Your task to perform on an android device: turn on sleep mode Image 0: 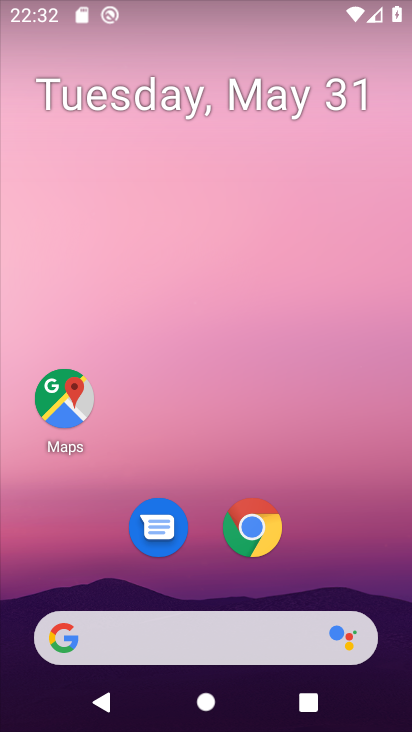
Step 0: drag from (241, 271) to (233, 55)
Your task to perform on an android device: turn on sleep mode Image 1: 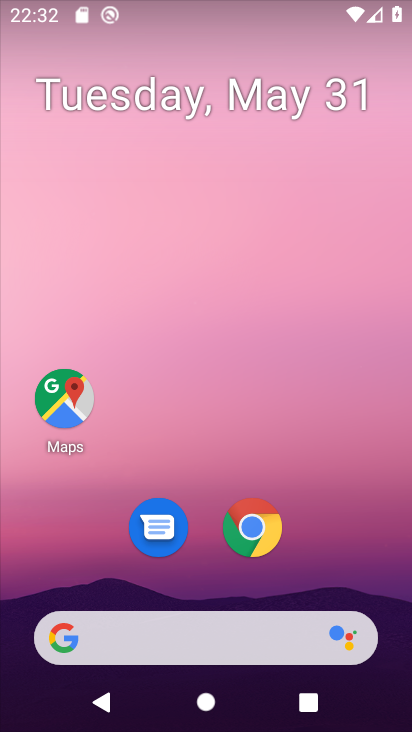
Step 1: drag from (292, 176) to (234, 7)
Your task to perform on an android device: turn on sleep mode Image 2: 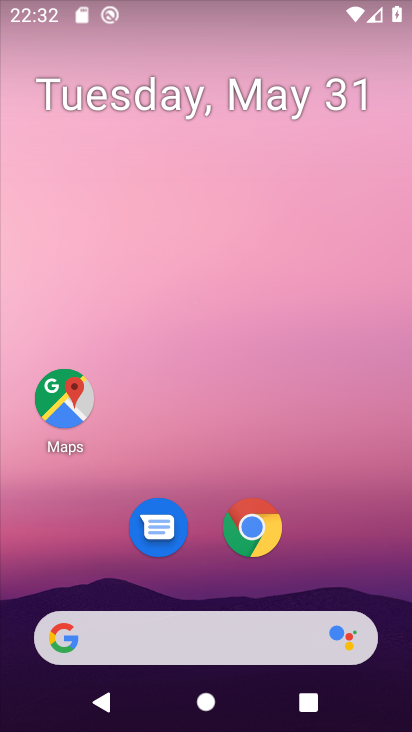
Step 2: drag from (329, 470) to (269, 25)
Your task to perform on an android device: turn on sleep mode Image 3: 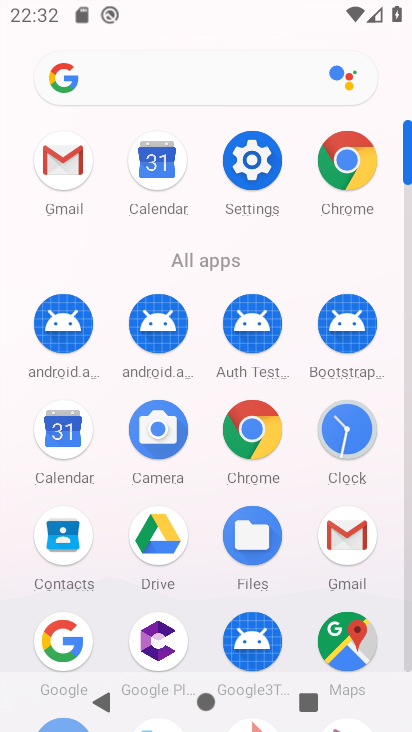
Step 3: click (257, 166)
Your task to perform on an android device: turn on sleep mode Image 4: 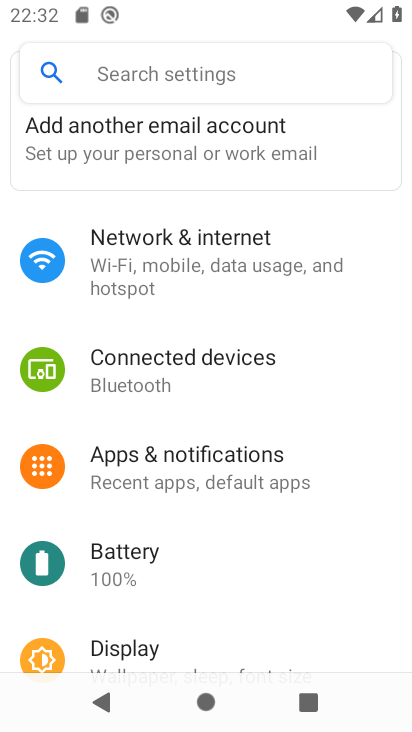
Step 4: click (142, 645)
Your task to perform on an android device: turn on sleep mode Image 5: 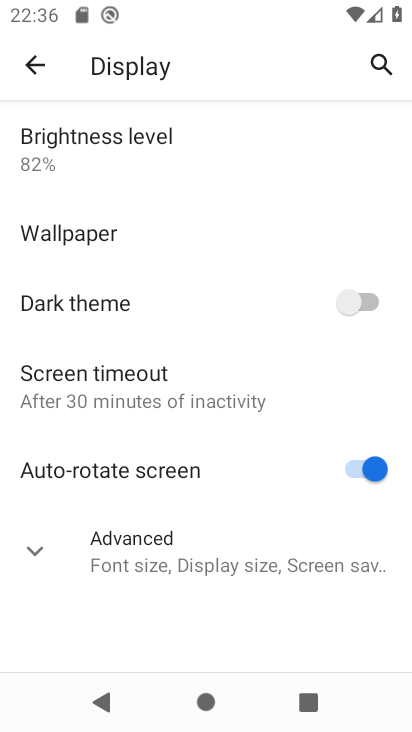
Step 5: task complete